Your task to perform on an android device: set the timer Image 0: 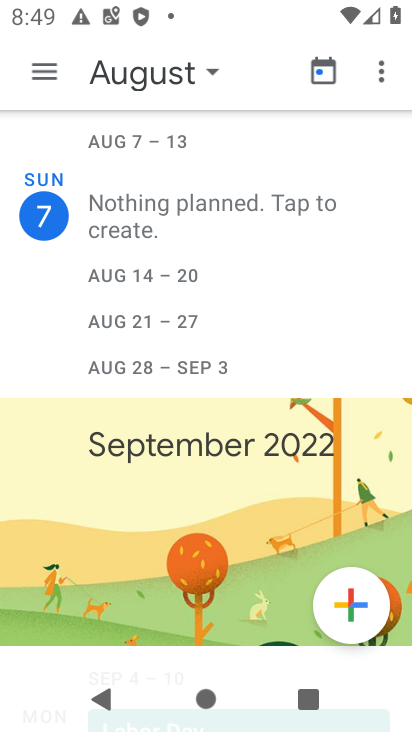
Step 0: press home button
Your task to perform on an android device: set the timer Image 1: 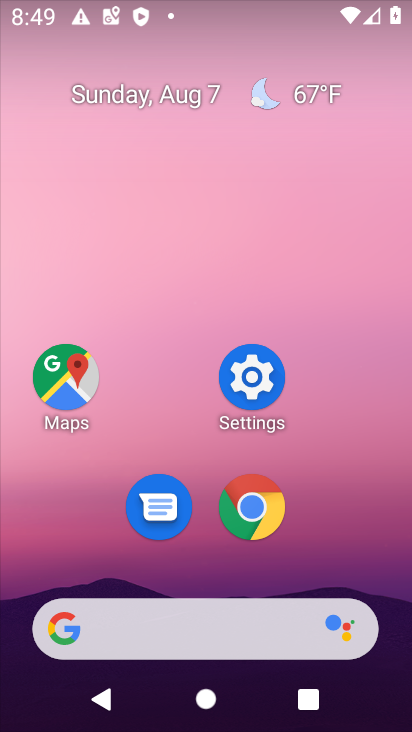
Step 1: drag from (167, 641) to (340, 39)
Your task to perform on an android device: set the timer Image 2: 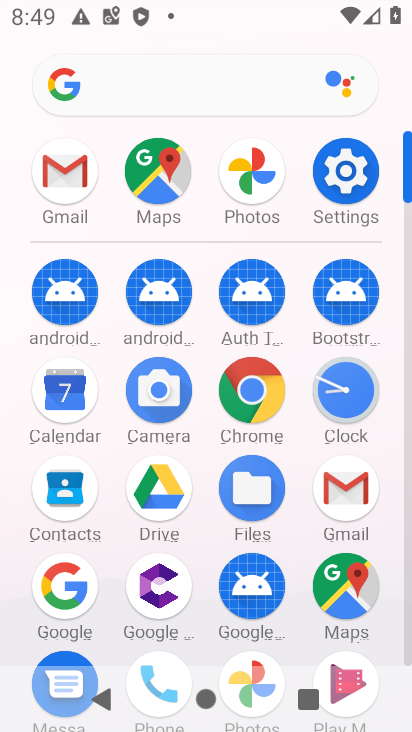
Step 2: click (331, 393)
Your task to perform on an android device: set the timer Image 3: 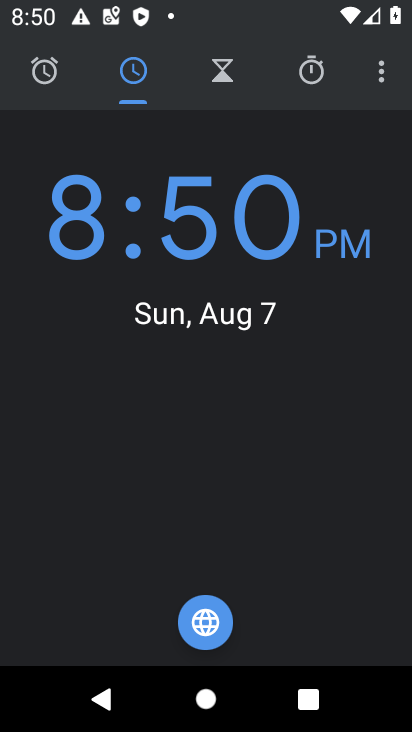
Step 3: click (215, 70)
Your task to perform on an android device: set the timer Image 4: 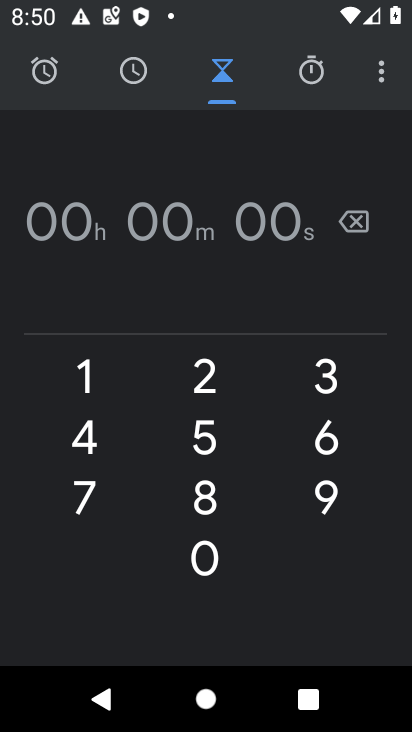
Step 4: click (204, 441)
Your task to perform on an android device: set the timer Image 5: 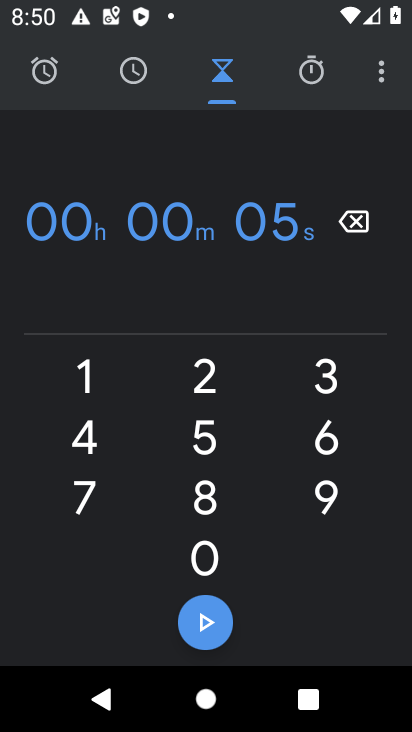
Step 5: click (217, 496)
Your task to perform on an android device: set the timer Image 6: 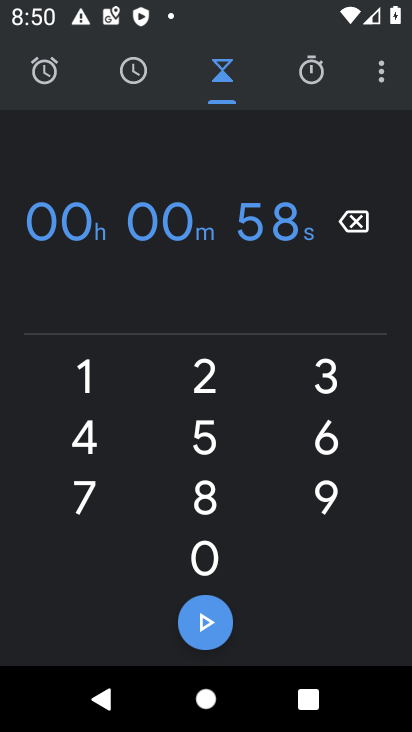
Step 6: click (210, 626)
Your task to perform on an android device: set the timer Image 7: 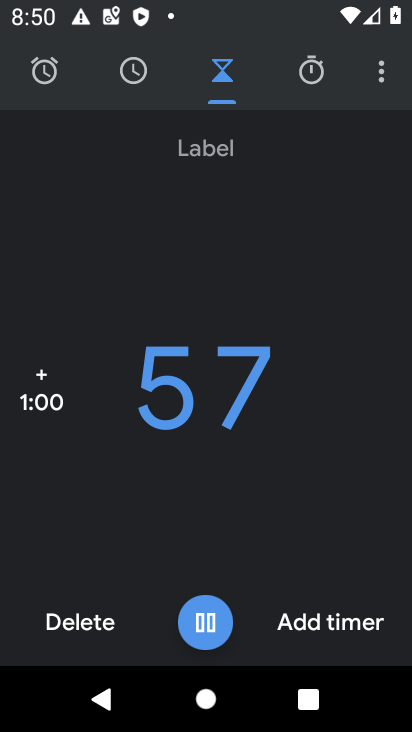
Step 7: click (210, 626)
Your task to perform on an android device: set the timer Image 8: 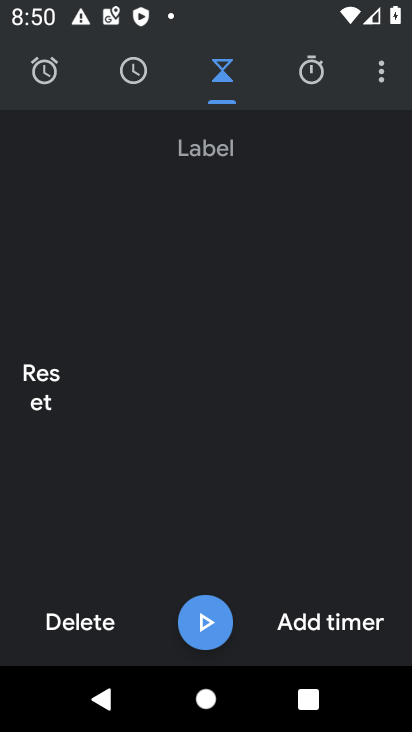
Step 8: task complete